Your task to perform on an android device: When is my next meeting? Image 0: 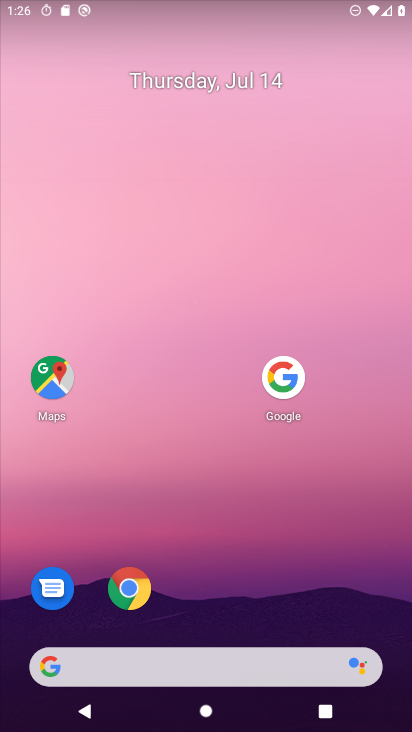
Step 0: drag from (193, 599) to (272, 128)
Your task to perform on an android device: When is my next meeting? Image 1: 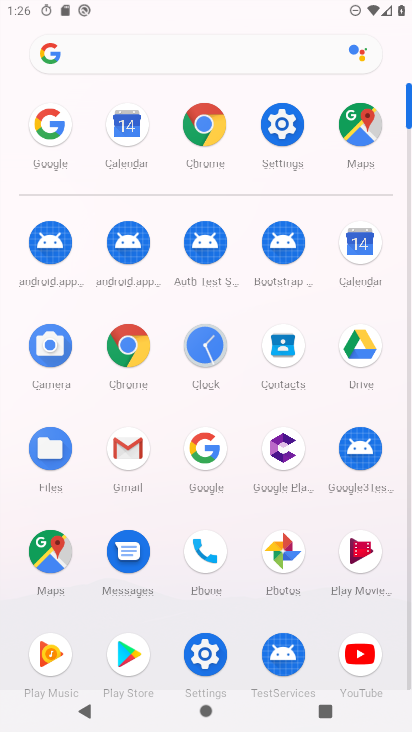
Step 1: click (124, 126)
Your task to perform on an android device: When is my next meeting? Image 2: 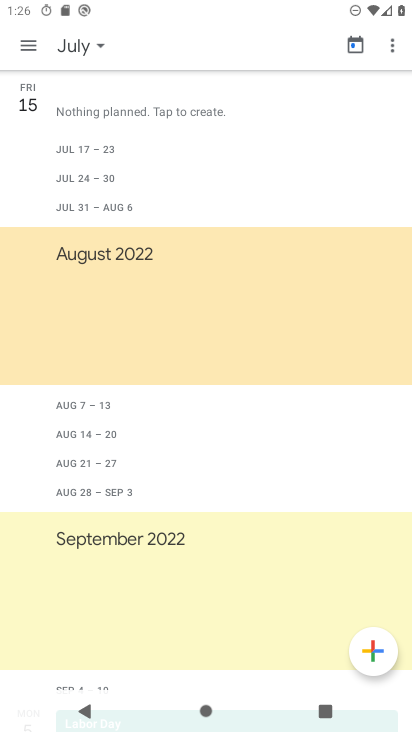
Step 2: click (27, 45)
Your task to perform on an android device: When is my next meeting? Image 3: 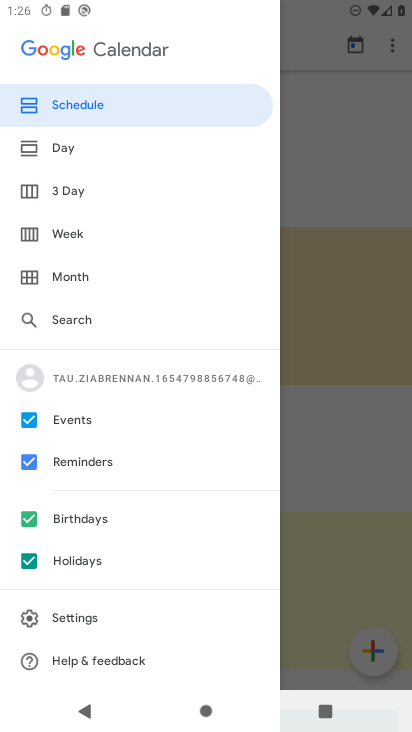
Step 3: click (60, 106)
Your task to perform on an android device: When is my next meeting? Image 4: 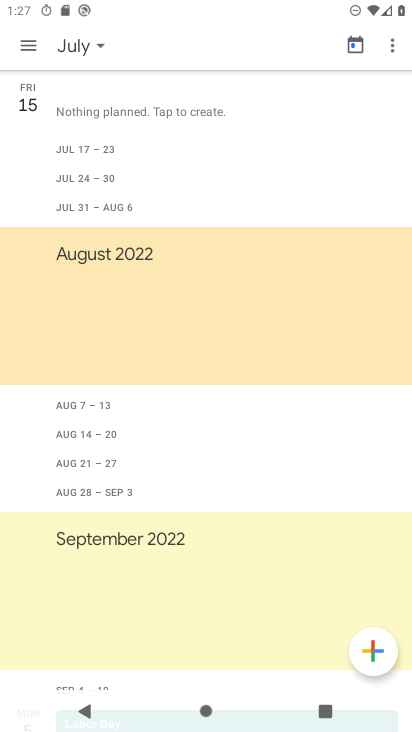
Step 4: task complete